Your task to perform on an android device: show emergency info Image 0: 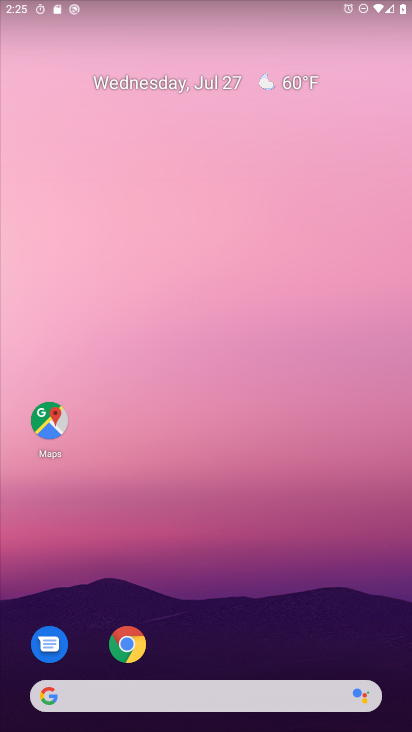
Step 0: drag from (204, 604) to (344, 558)
Your task to perform on an android device: show emergency info Image 1: 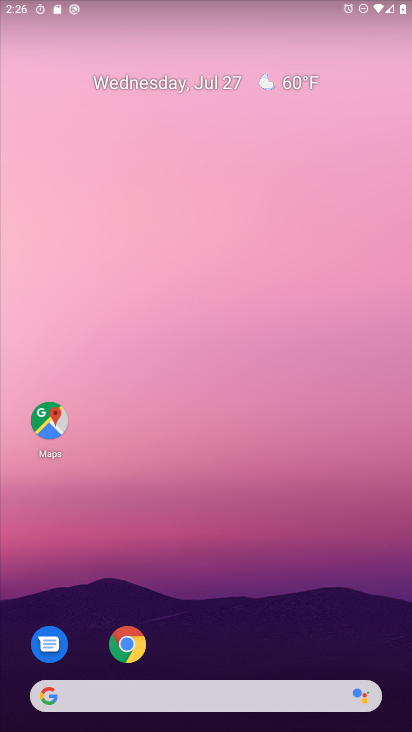
Step 1: drag from (176, 532) to (324, 192)
Your task to perform on an android device: show emergency info Image 2: 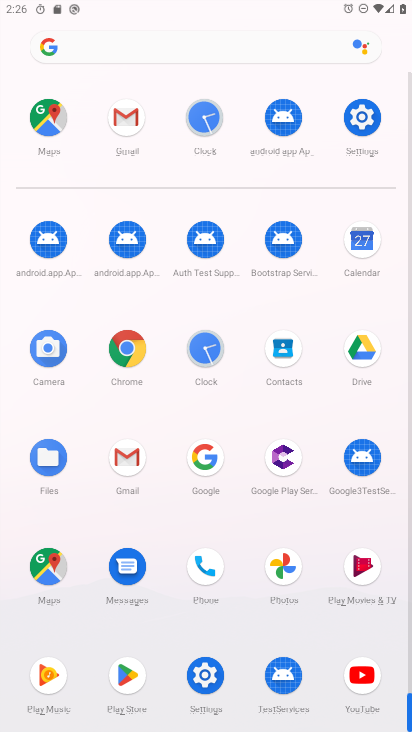
Step 2: click (378, 131)
Your task to perform on an android device: show emergency info Image 3: 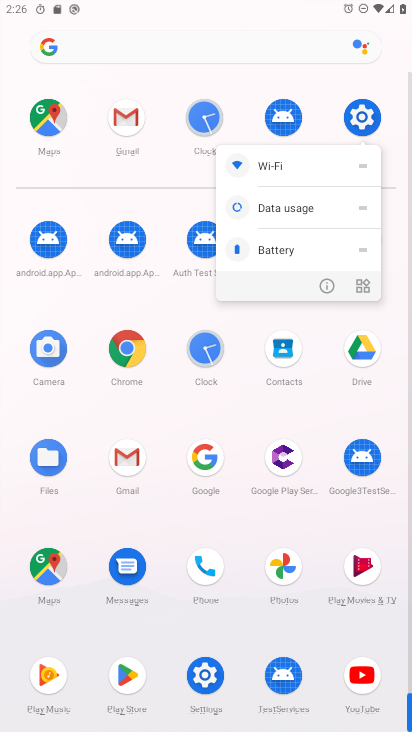
Step 3: click (334, 289)
Your task to perform on an android device: show emergency info Image 4: 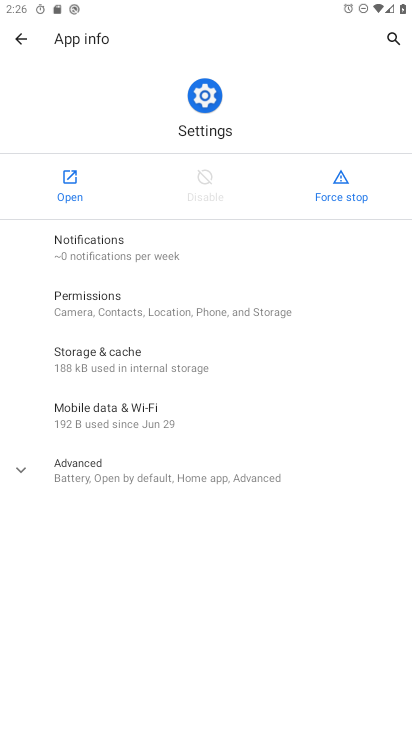
Step 4: click (64, 174)
Your task to perform on an android device: show emergency info Image 5: 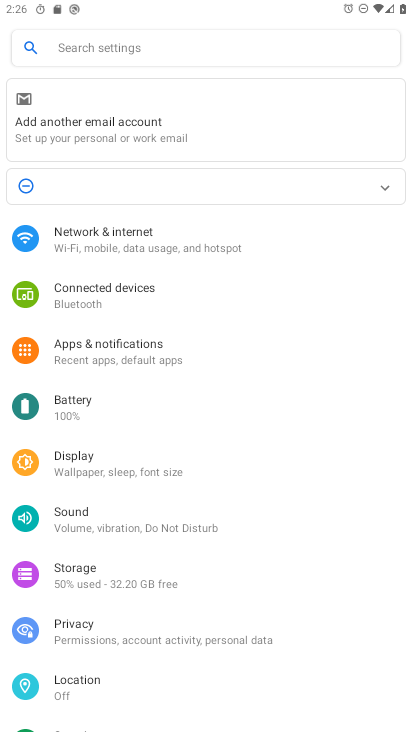
Step 5: drag from (148, 591) to (131, 56)
Your task to perform on an android device: show emergency info Image 6: 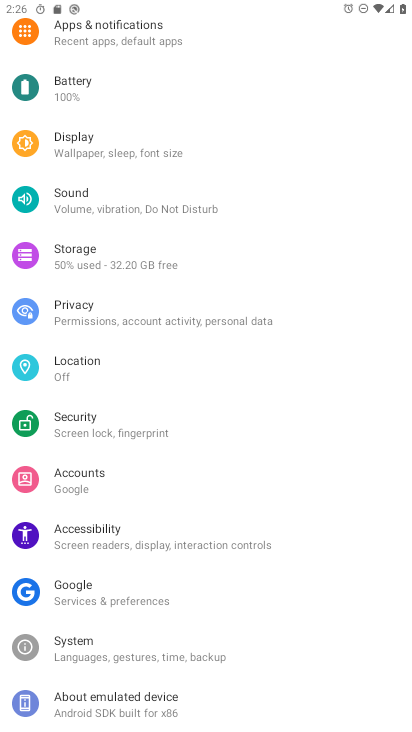
Step 6: click (131, 710)
Your task to perform on an android device: show emergency info Image 7: 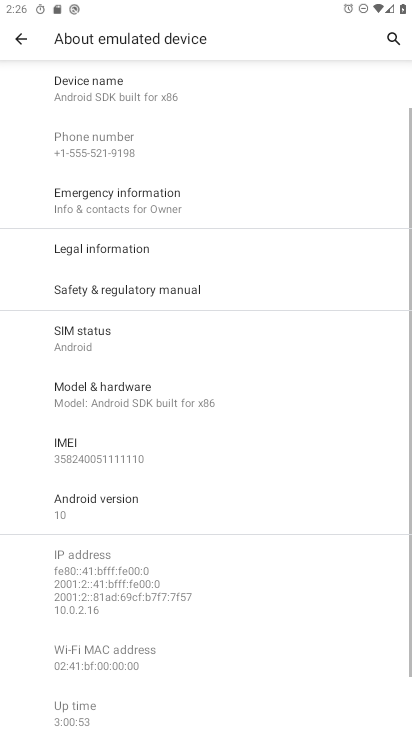
Step 7: click (149, 198)
Your task to perform on an android device: show emergency info Image 8: 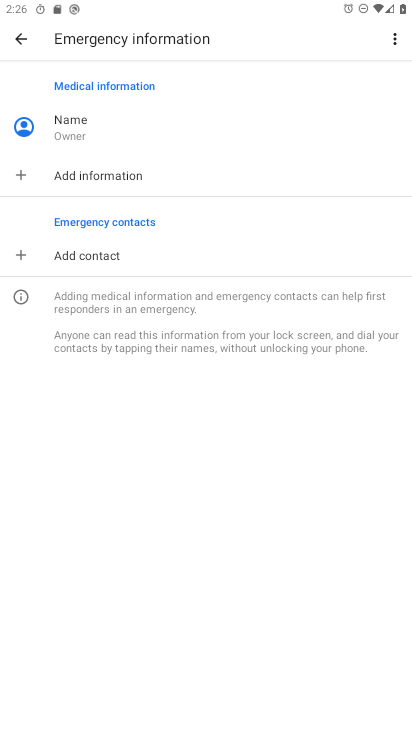
Step 8: task complete